Your task to perform on an android device: Open Yahoo.com Image 0: 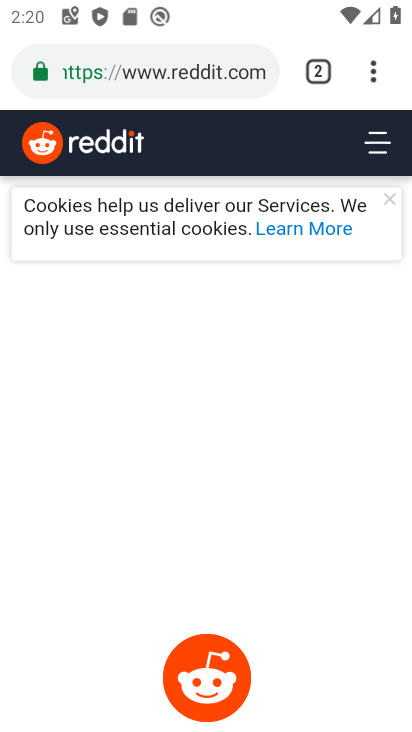
Step 0: click (178, 73)
Your task to perform on an android device: Open Yahoo.com Image 1: 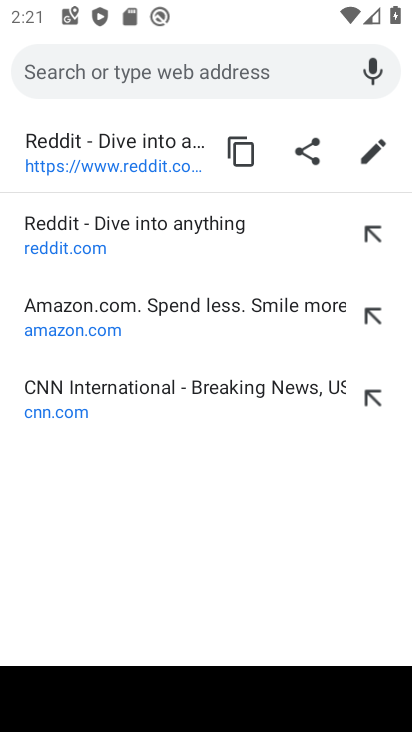
Step 1: type "yahoo.com"
Your task to perform on an android device: Open Yahoo.com Image 2: 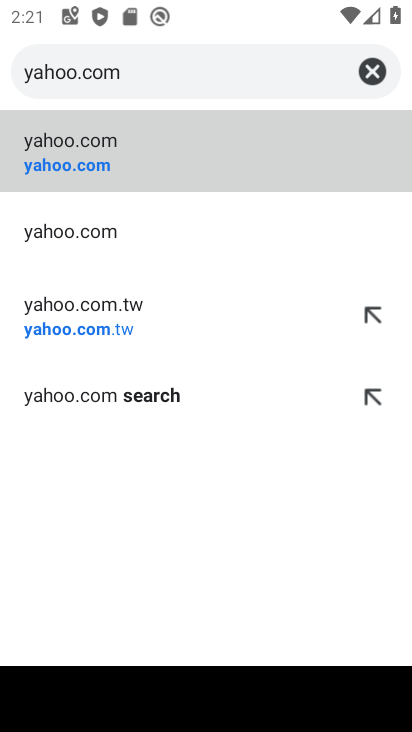
Step 2: click (76, 168)
Your task to perform on an android device: Open Yahoo.com Image 3: 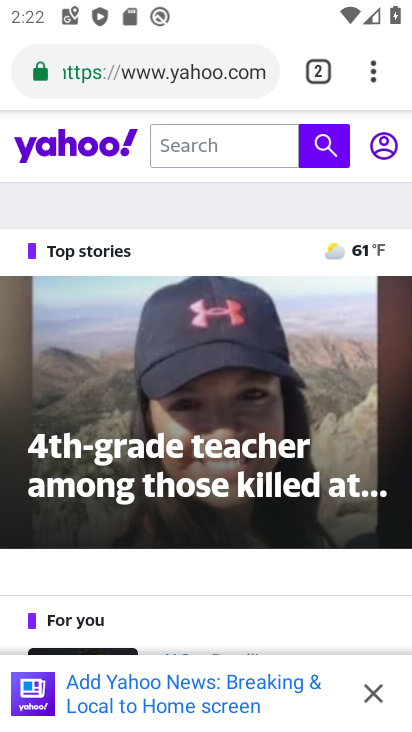
Step 3: task complete